Your task to perform on an android device: Go to network settings Image 0: 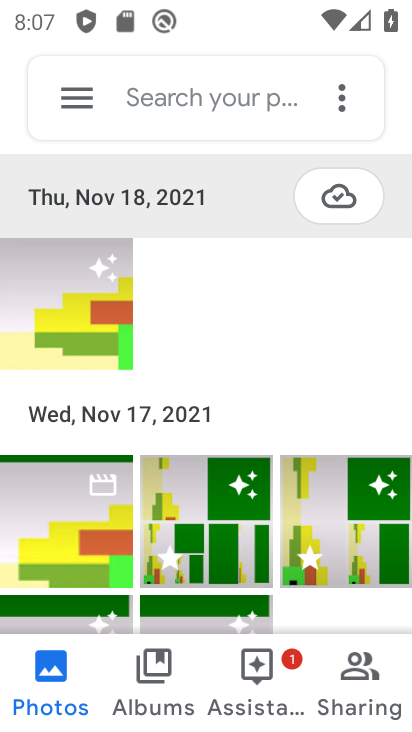
Step 0: press home button
Your task to perform on an android device: Go to network settings Image 1: 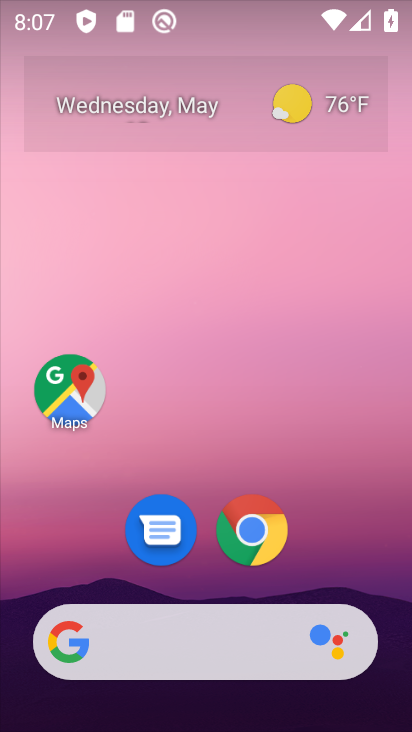
Step 1: drag from (358, 560) to (353, 190)
Your task to perform on an android device: Go to network settings Image 2: 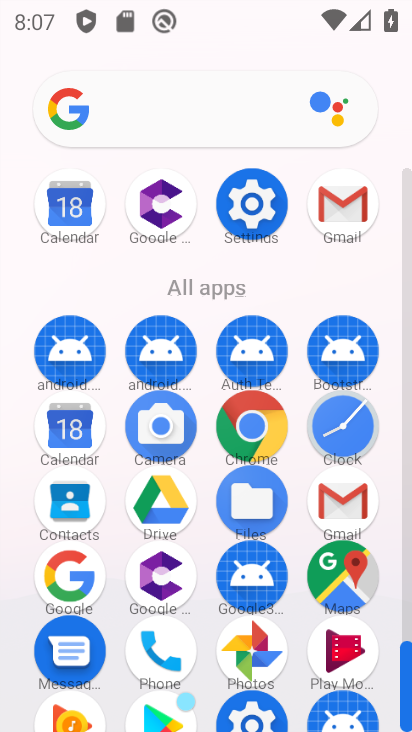
Step 2: click (240, 188)
Your task to perform on an android device: Go to network settings Image 3: 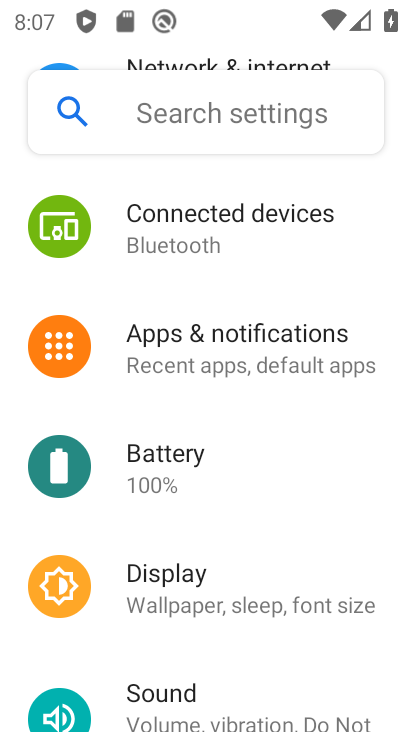
Step 3: drag from (232, 228) to (192, 578)
Your task to perform on an android device: Go to network settings Image 4: 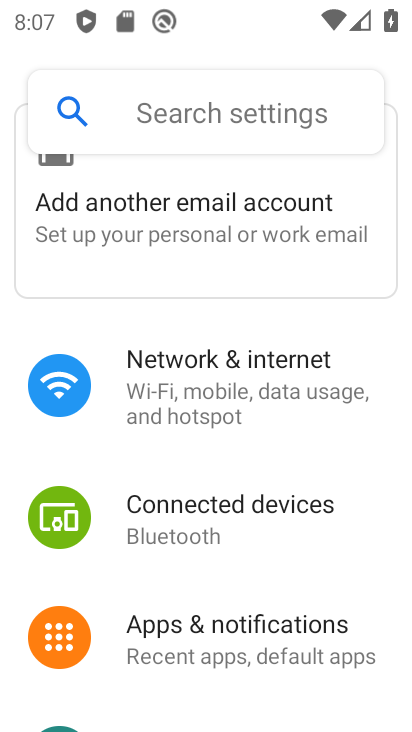
Step 4: click (199, 366)
Your task to perform on an android device: Go to network settings Image 5: 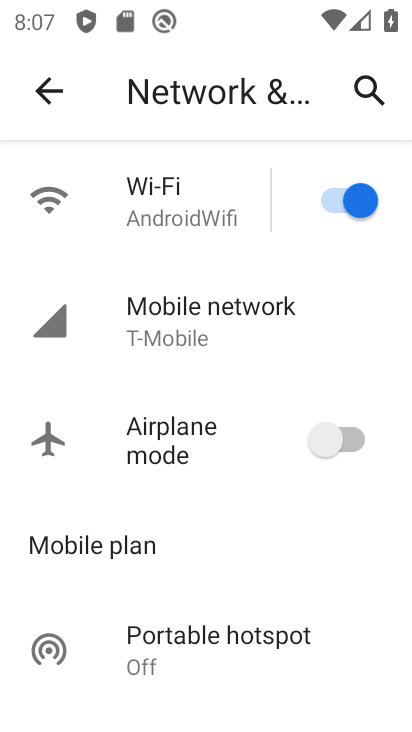
Step 5: task complete